Your task to perform on an android device: change the clock display to analog Image 0: 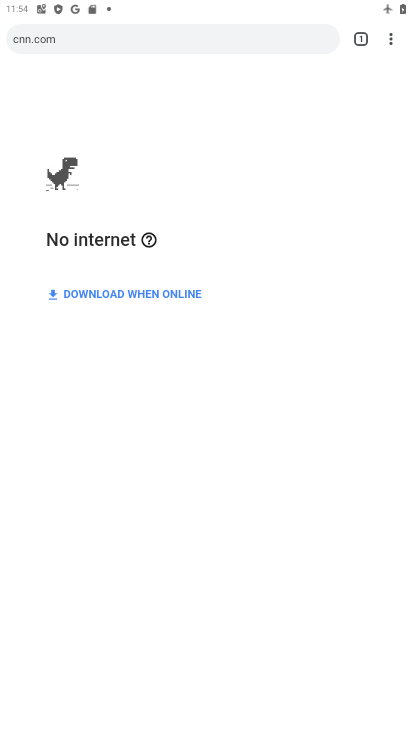
Step 0: press home button
Your task to perform on an android device: change the clock display to analog Image 1: 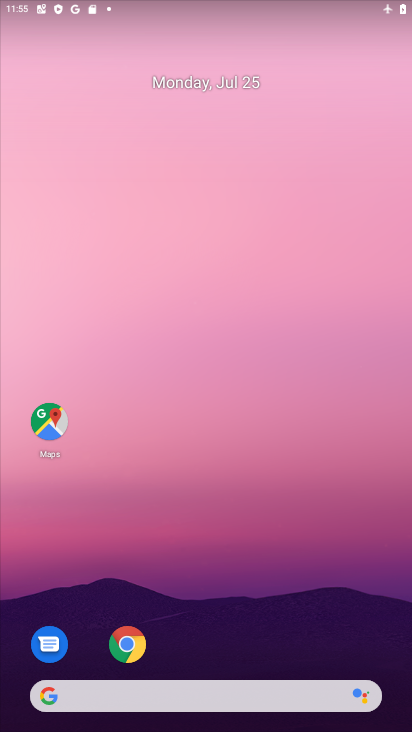
Step 1: drag from (244, 665) to (249, 57)
Your task to perform on an android device: change the clock display to analog Image 2: 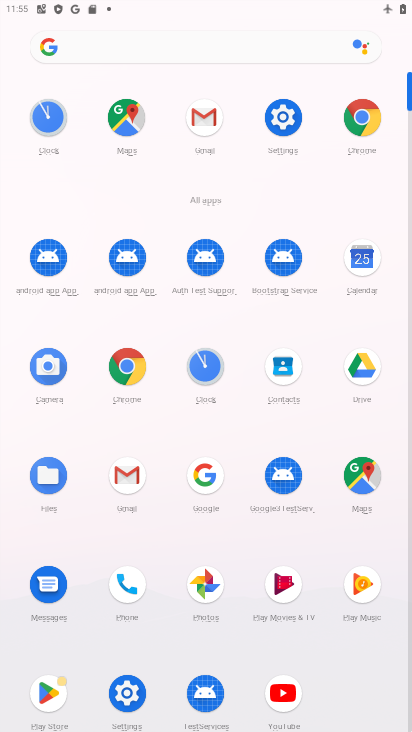
Step 2: click (199, 370)
Your task to perform on an android device: change the clock display to analog Image 3: 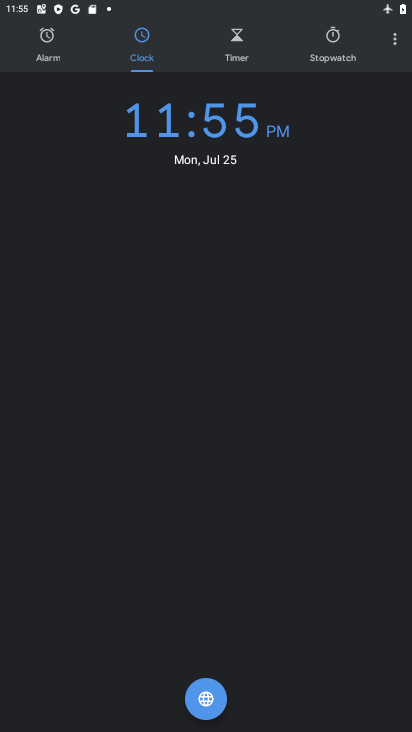
Step 3: click (395, 43)
Your task to perform on an android device: change the clock display to analog Image 4: 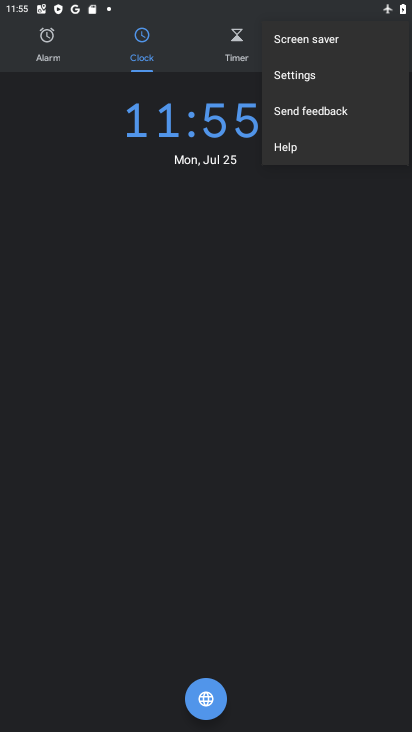
Step 4: click (288, 74)
Your task to perform on an android device: change the clock display to analog Image 5: 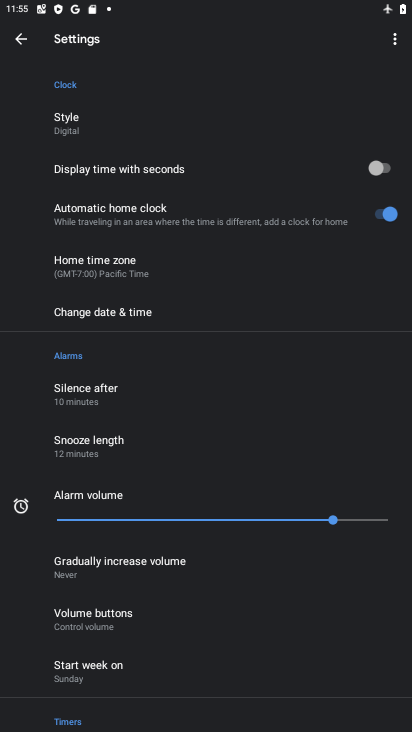
Step 5: click (71, 124)
Your task to perform on an android device: change the clock display to analog Image 6: 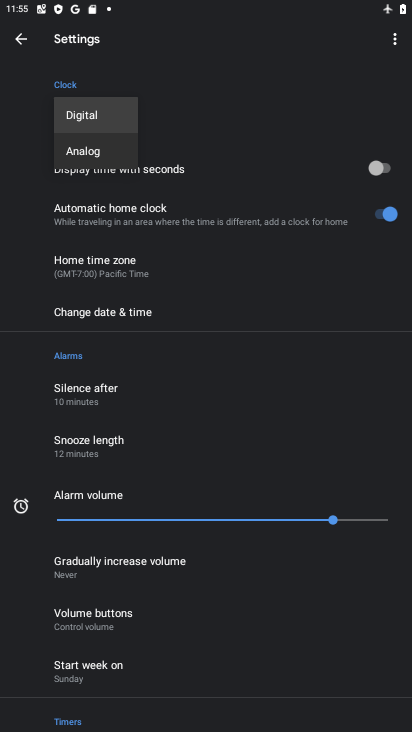
Step 6: click (81, 156)
Your task to perform on an android device: change the clock display to analog Image 7: 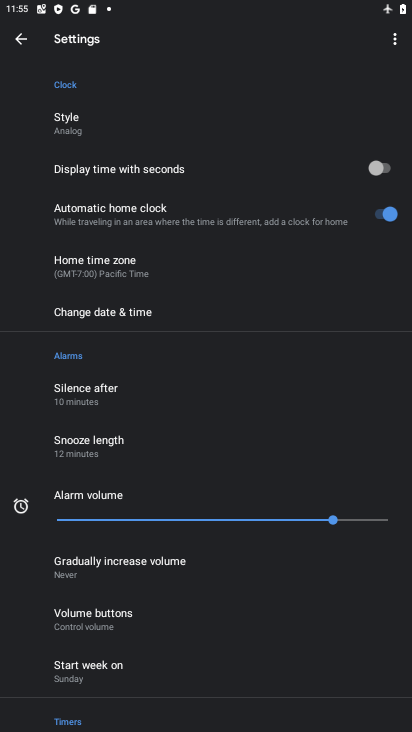
Step 7: task complete